Your task to perform on an android device: toggle translation in the chrome app Image 0: 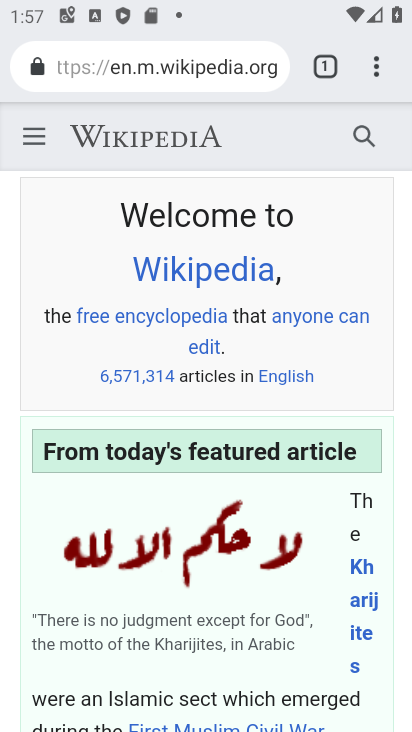
Step 0: click (375, 73)
Your task to perform on an android device: toggle translation in the chrome app Image 1: 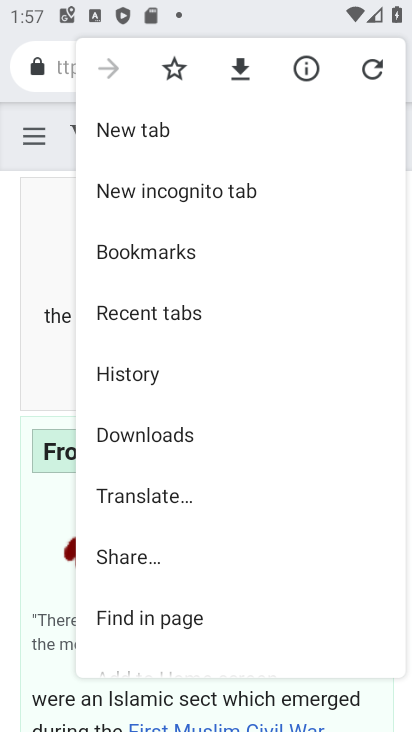
Step 1: drag from (207, 508) to (233, 64)
Your task to perform on an android device: toggle translation in the chrome app Image 2: 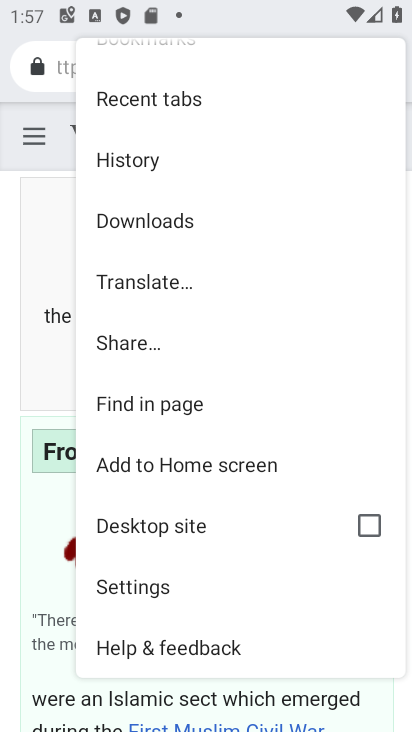
Step 2: click (157, 587)
Your task to perform on an android device: toggle translation in the chrome app Image 3: 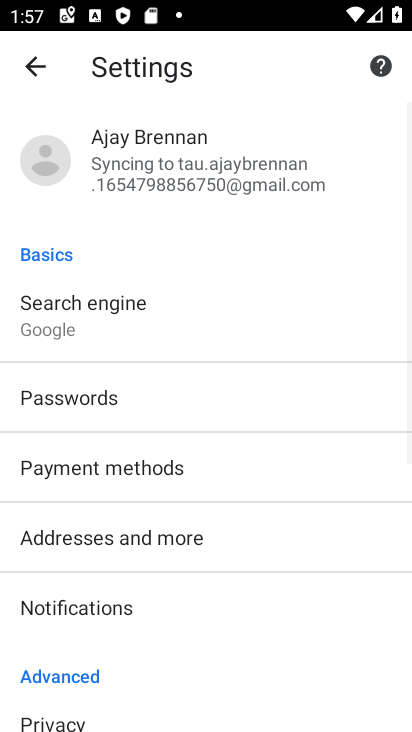
Step 3: drag from (241, 462) to (282, 13)
Your task to perform on an android device: toggle translation in the chrome app Image 4: 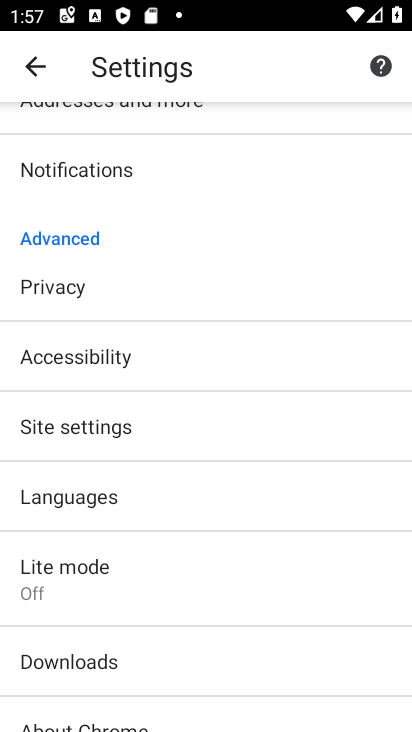
Step 4: click (187, 500)
Your task to perform on an android device: toggle translation in the chrome app Image 5: 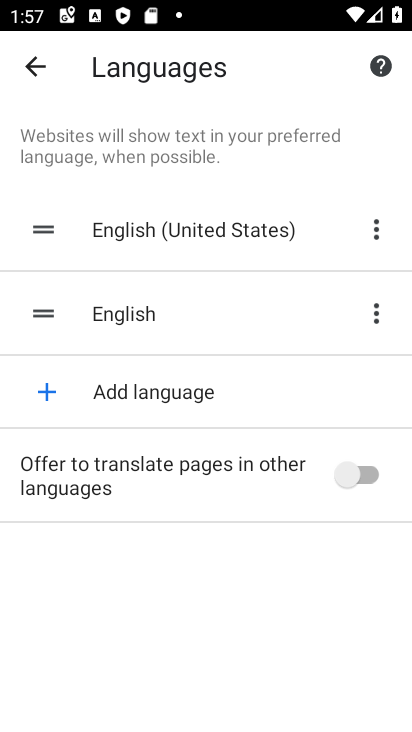
Step 5: click (362, 469)
Your task to perform on an android device: toggle translation in the chrome app Image 6: 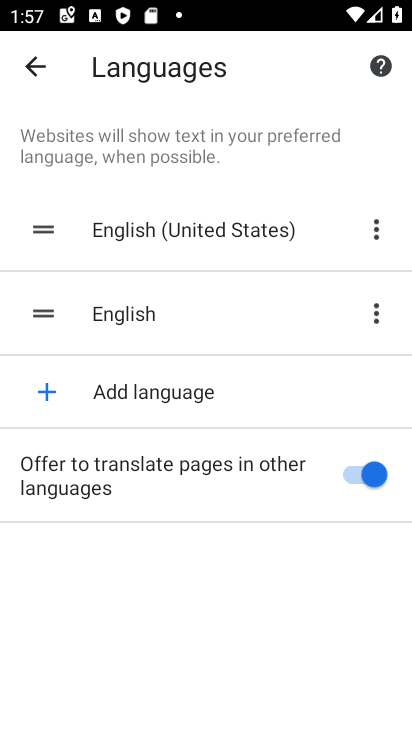
Step 6: task complete